Your task to perform on an android device: Go to location settings Image 0: 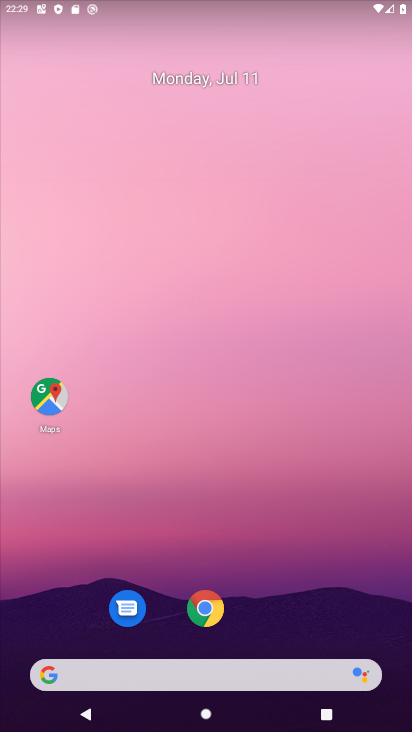
Step 0: drag from (45, 712) to (189, 242)
Your task to perform on an android device: Go to location settings Image 1: 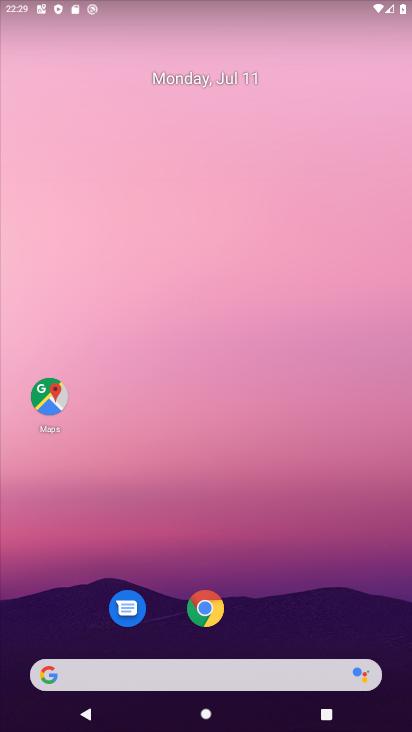
Step 1: drag from (37, 704) to (292, 32)
Your task to perform on an android device: Go to location settings Image 2: 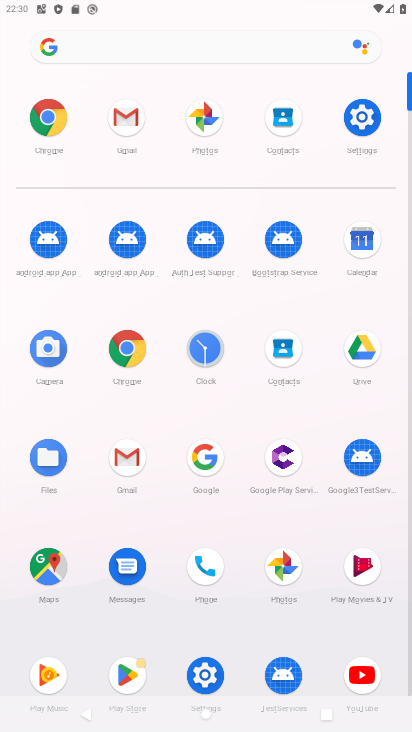
Step 2: click (200, 675)
Your task to perform on an android device: Go to location settings Image 3: 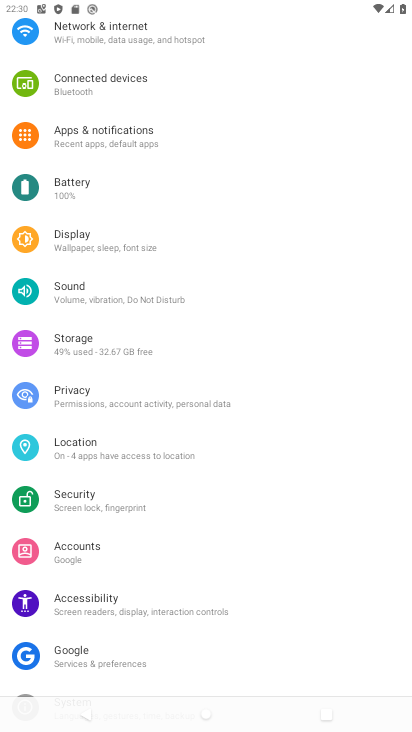
Step 3: click (105, 439)
Your task to perform on an android device: Go to location settings Image 4: 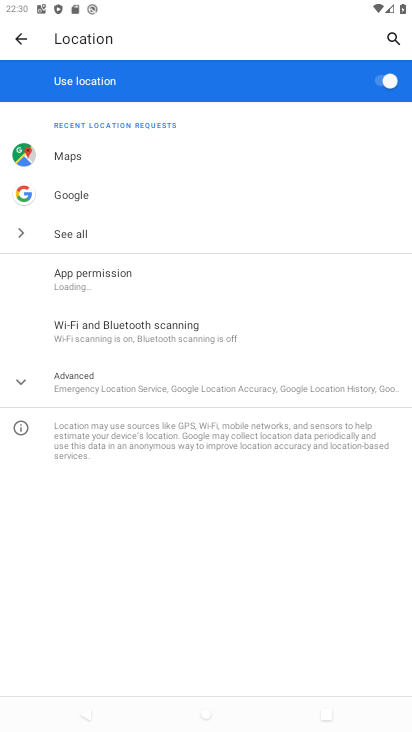
Step 4: task complete